Your task to perform on an android device: Check the weather Image 0: 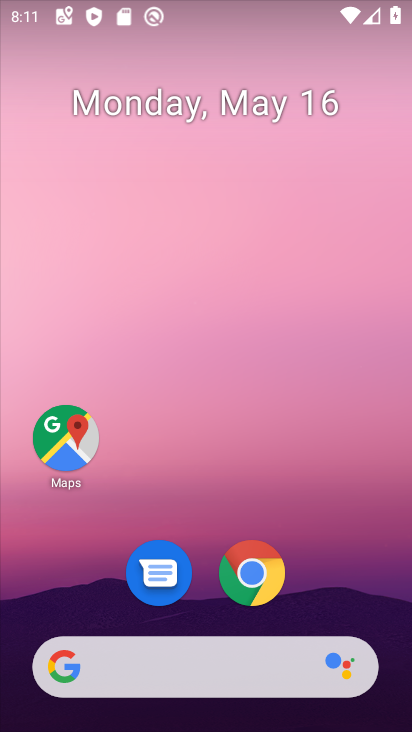
Step 0: drag from (339, 571) to (269, 102)
Your task to perform on an android device: Check the weather Image 1: 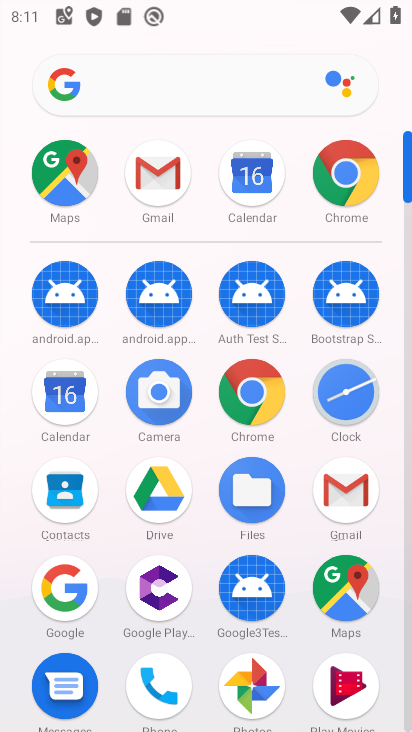
Step 1: click (62, 75)
Your task to perform on an android device: Check the weather Image 2: 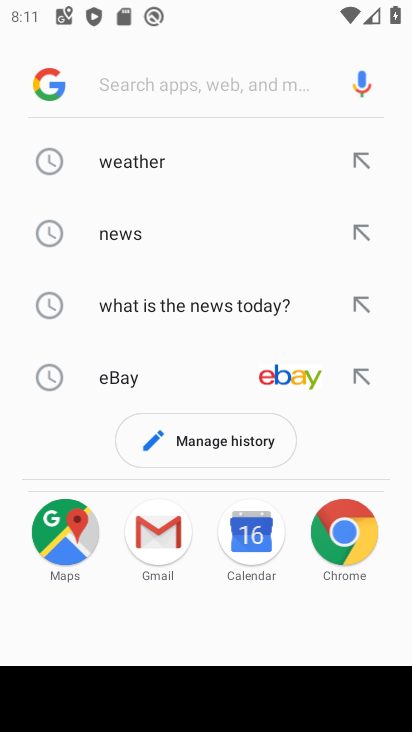
Step 2: click (56, 80)
Your task to perform on an android device: Check the weather Image 3: 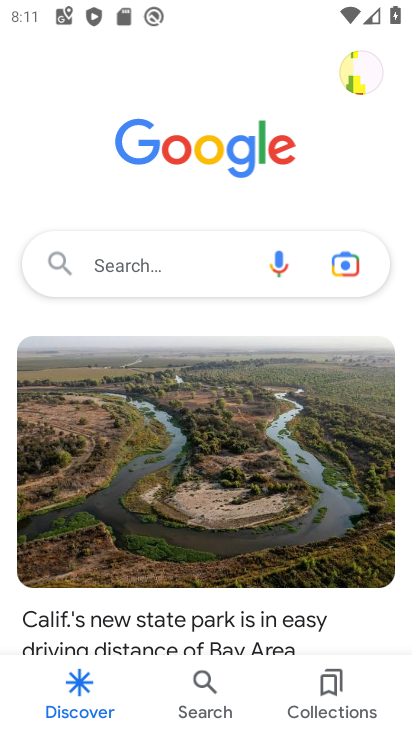
Step 3: task complete